Your task to perform on an android device: Open internet settings Image 0: 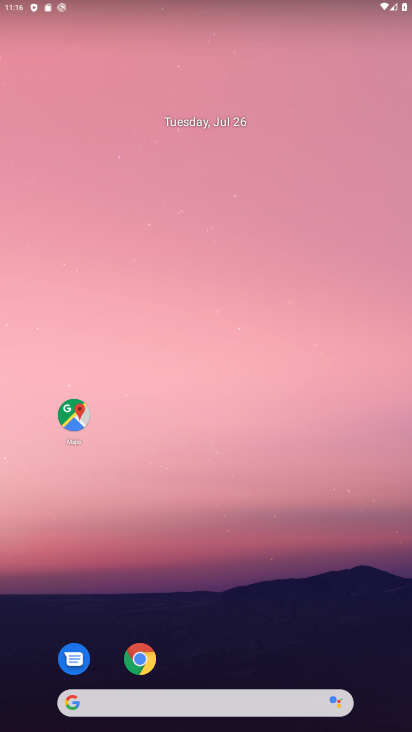
Step 0: drag from (157, 662) to (178, 101)
Your task to perform on an android device: Open internet settings Image 1: 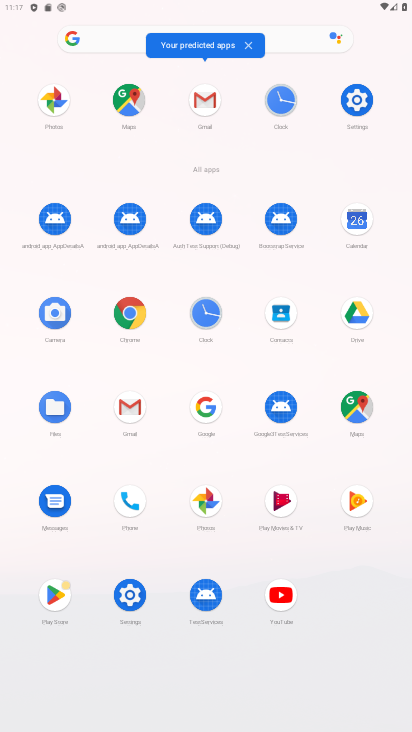
Step 1: click (350, 124)
Your task to perform on an android device: Open internet settings Image 2: 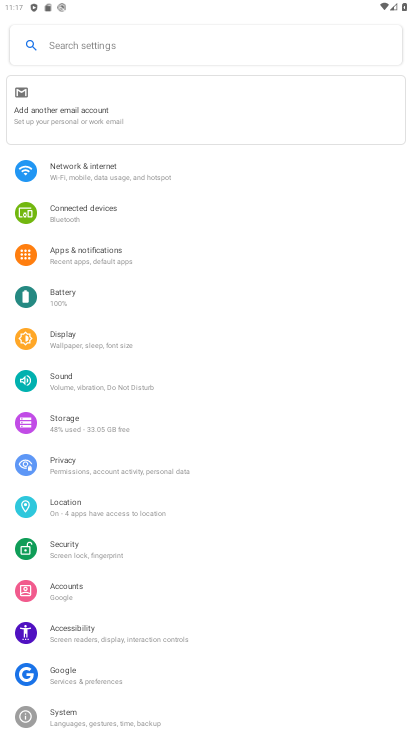
Step 2: click (105, 178)
Your task to perform on an android device: Open internet settings Image 3: 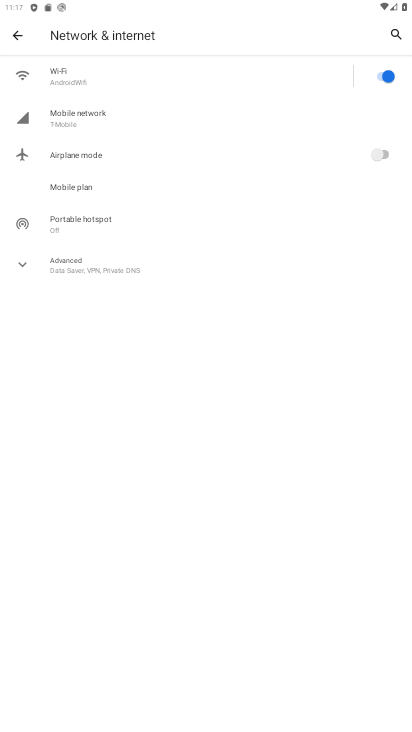
Step 3: click (102, 124)
Your task to perform on an android device: Open internet settings Image 4: 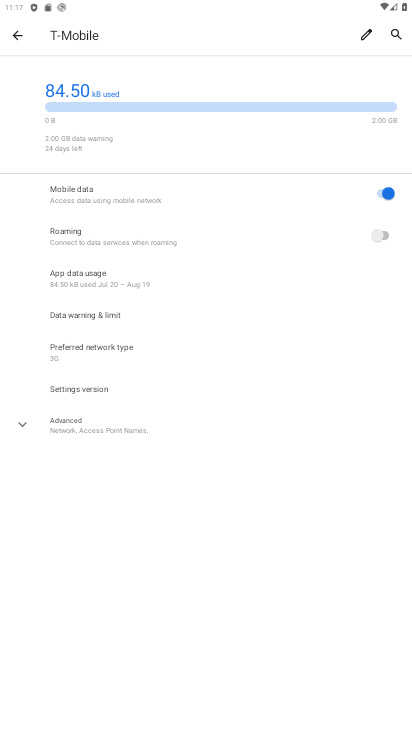
Step 4: task complete